Your task to perform on an android device: Open privacy settings Image 0: 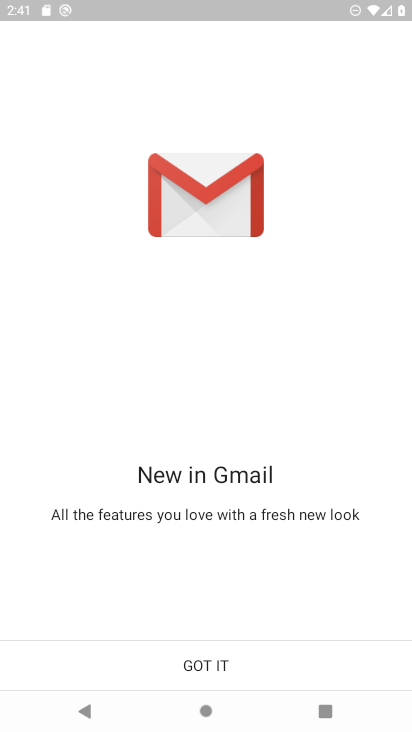
Step 0: press home button
Your task to perform on an android device: Open privacy settings Image 1: 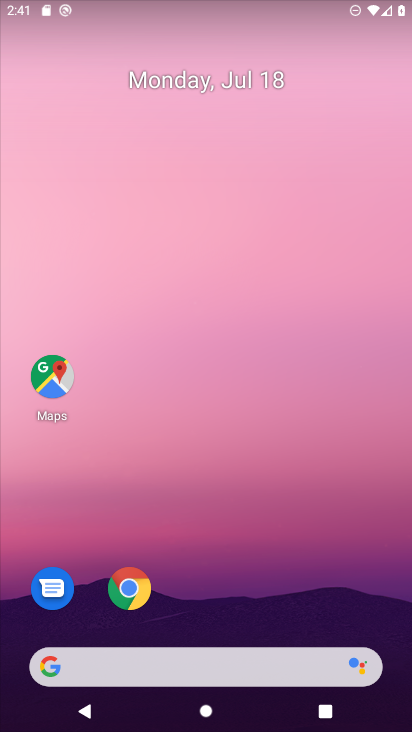
Step 1: drag from (279, 620) to (196, 31)
Your task to perform on an android device: Open privacy settings Image 2: 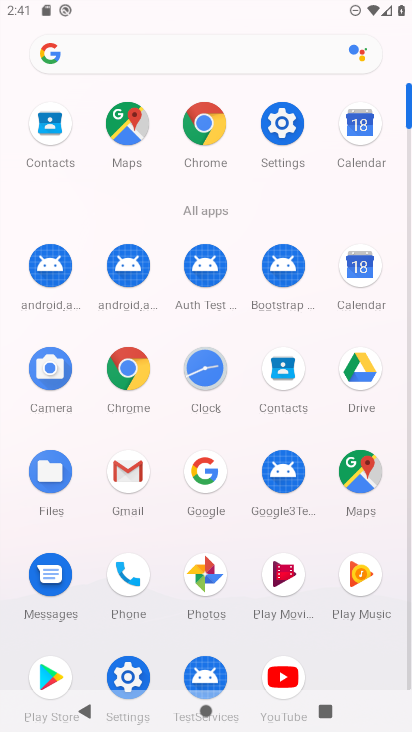
Step 2: click (286, 139)
Your task to perform on an android device: Open privacy settings Image 3: 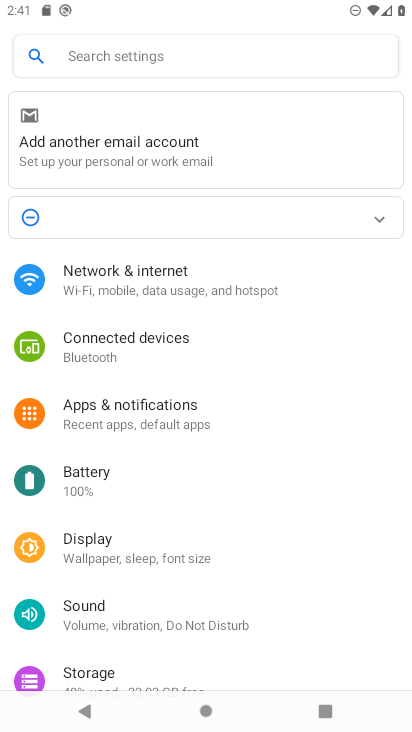
Step 3: drag from (174, 640) to (142, 289)
Your task to perform on an android device: Open privacy settings Image 4: 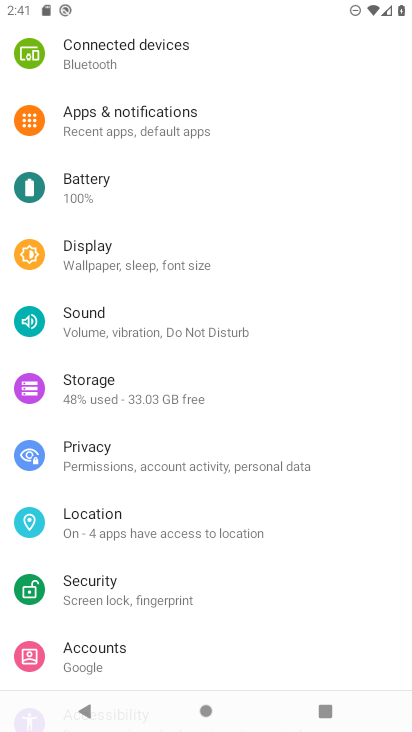
Step 4: click (190, 455)
Your task to perform on an android device: Open privacy settings Image 5: 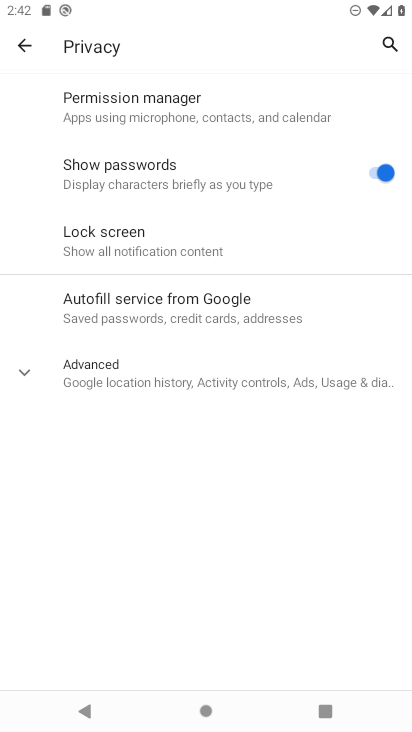
Step 5: task complete